Your task to perform on an android device: Go to settings Image 0: 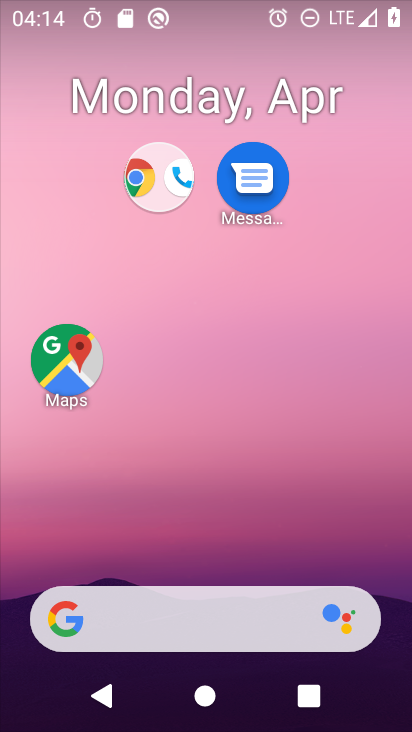
Step 0: drag from (286, 562) to (307, 10)
Your task to perform on an android device: Go to settings Image 1: 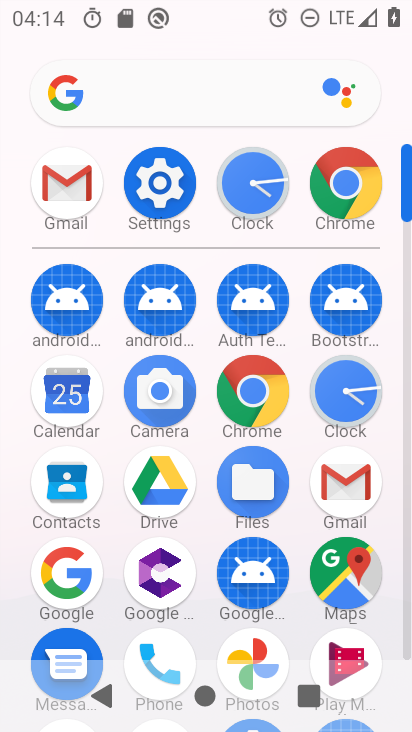
Step 1: drag from (204, 628) to (210, 191)
Your task to perform on an android device: Go to settings Image 2: 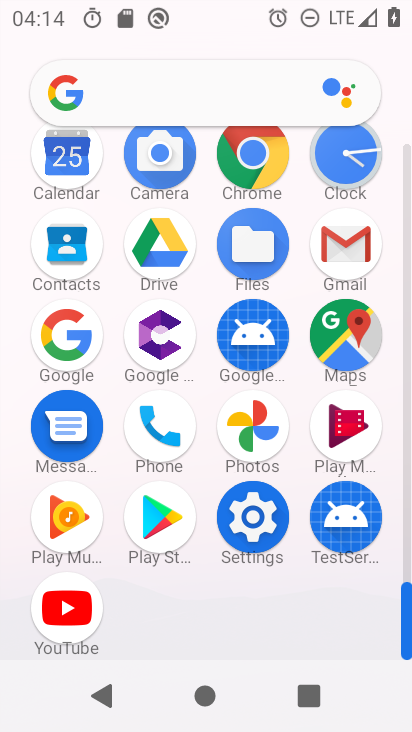
Step 2: click (277, 517)
Your task to perform on an android device: Go to settings Image 3: 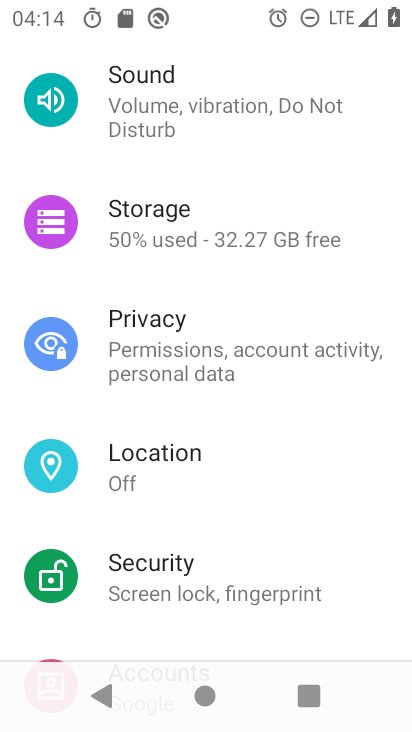
Step 3: task complete